Your task to perform on an android device: Open location settings Image 0: 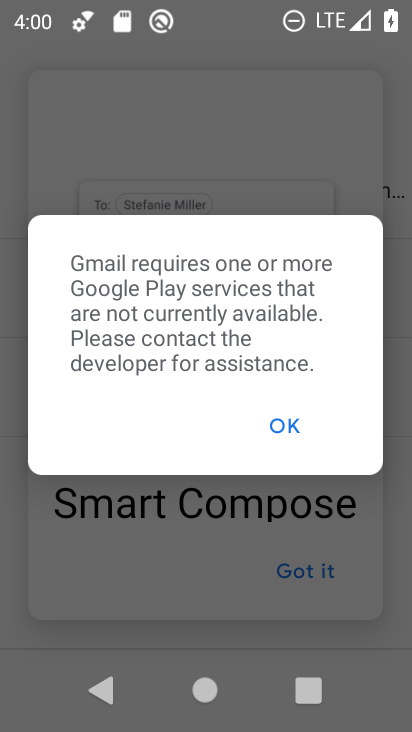
Step 0: press home button
Your task to perform on an android device: Open location settings Image 1: 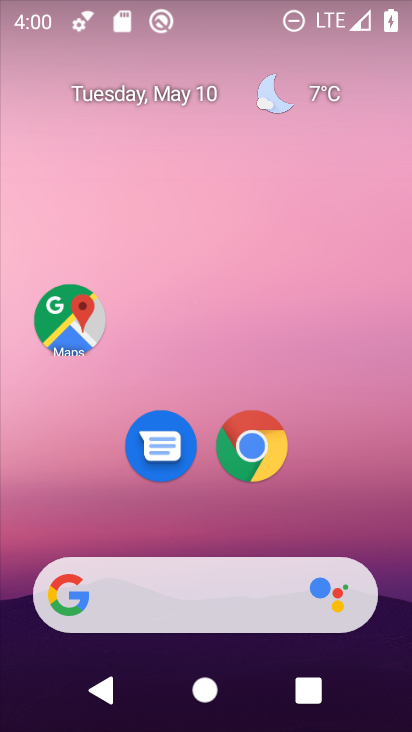
Step 1: drag from (215, 529) to (197, 110)
Your task to perform on an android device: Open location settings Image 2: 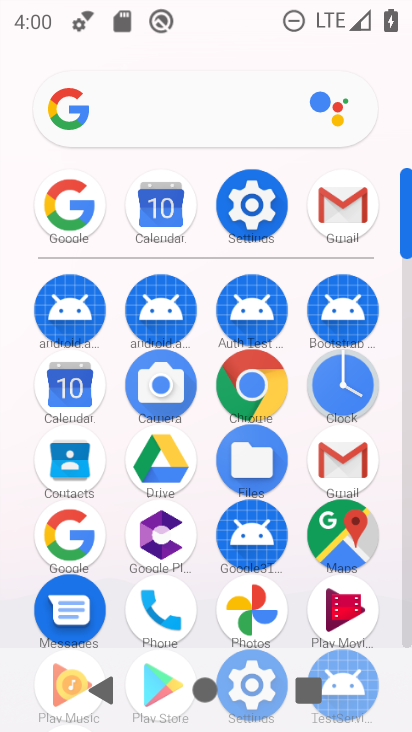
Step 2: click (248, 218)
Your task to perform on an android device: Open location settings Image 3: 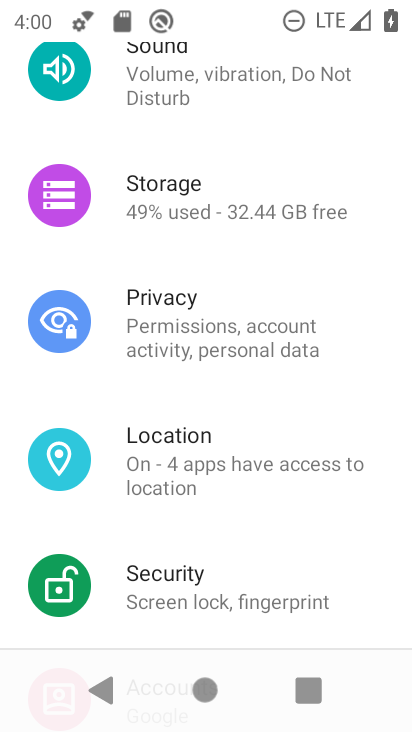
Step 3: click (237, 468)
Your task to perform on an android device: Open location settings Image 4: 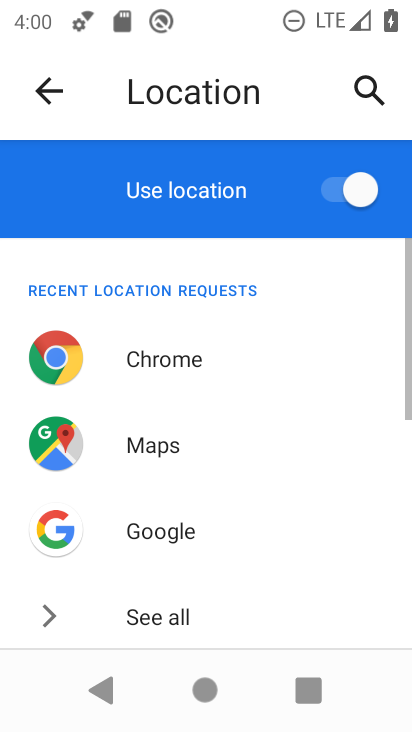
Step 4: task complete